Your task to perform on an android device: Search for seafood restaurants on Google Maps Image 0: 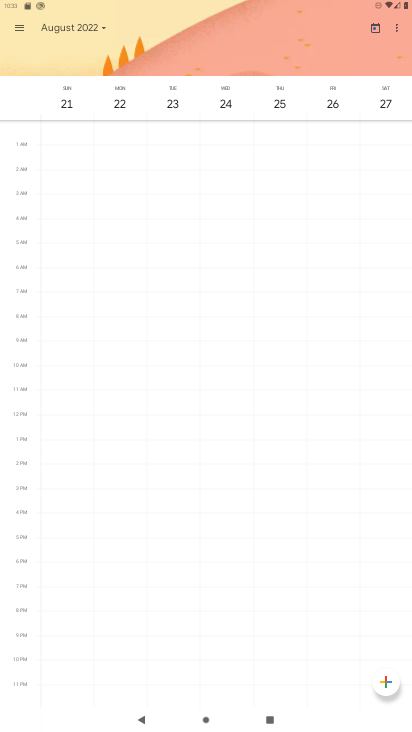
Step 0: press home button
Your task to perform on an android device: Search for seafood restaurants on Google Maps Image 1: 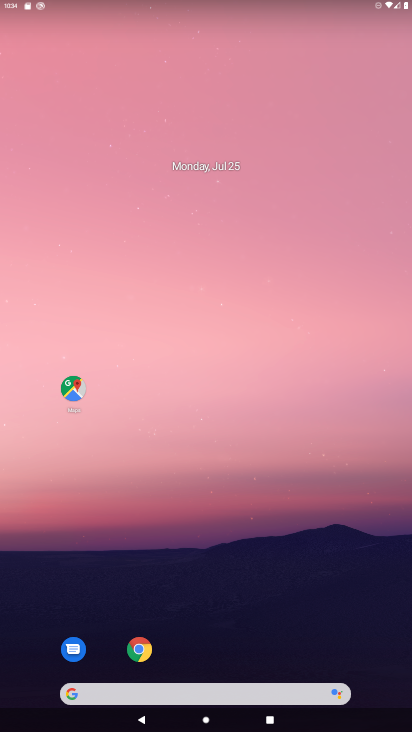
Step 1: click (75, 385)
Your task to perform on an android device: Search for seafood restaurants on Google Maps Image 2: 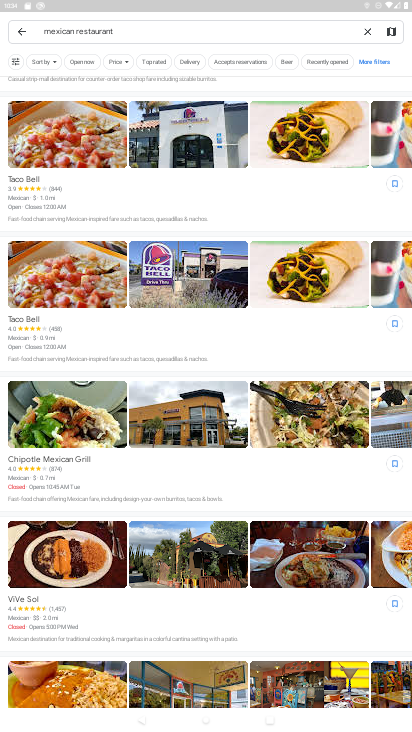
Step 2: click (364, 30)
Your task to perform on an android device: Search for seafood restaurants on Google Maps Image 3: 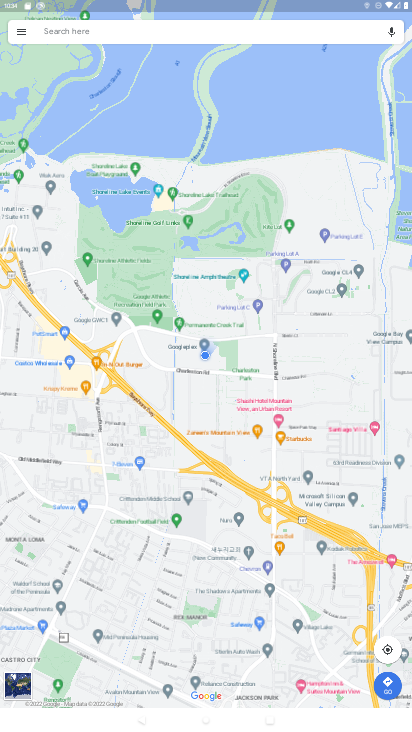
Step 3: click (83, 29)
Your task to perform on an android device: Search for seafood restaurants on Google Maps Image 4: 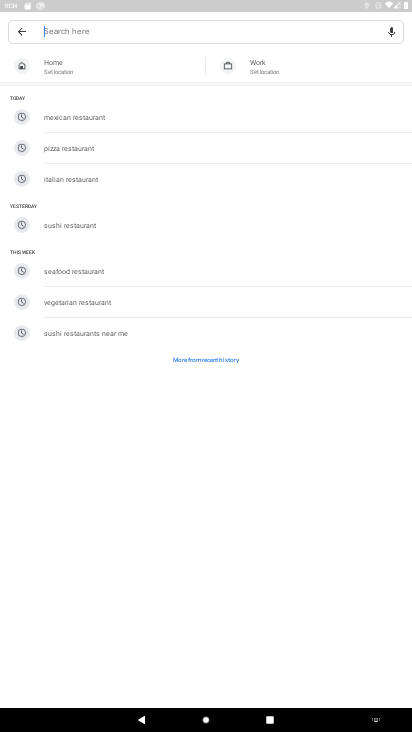
Step 4: type "seafood restaurants"
Your task to perform on an android device: Search for seafood restaurants on Google Maps Image 5: 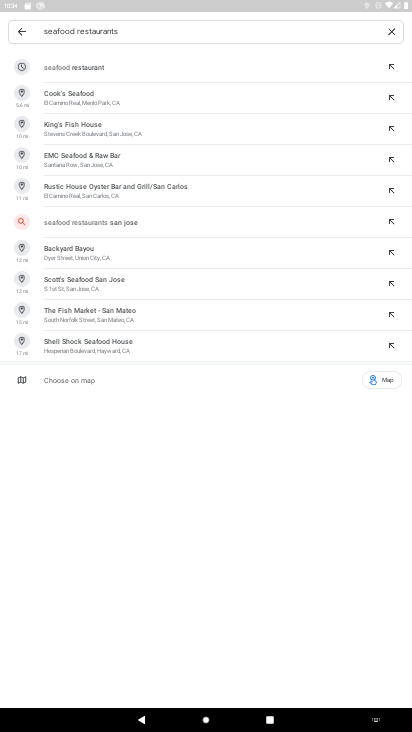
Step 5: click (80, 62)
Your task to perform on an android device: Search for seafood restaurants on Google Maps Image 6: 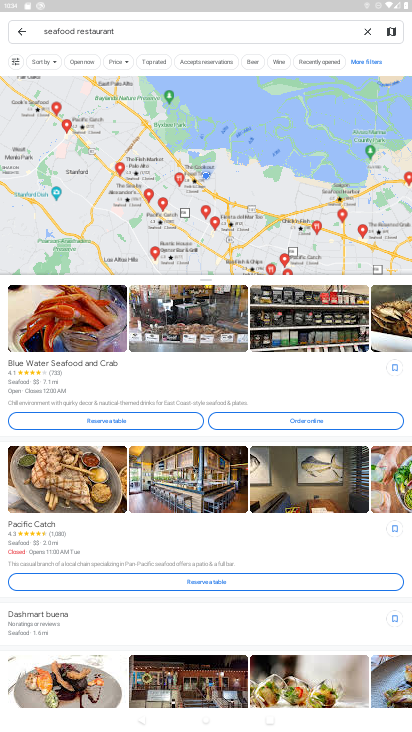
Step 6: task complete